Your task to perform on an android device: Is it going to rain this weekend? Image 0: 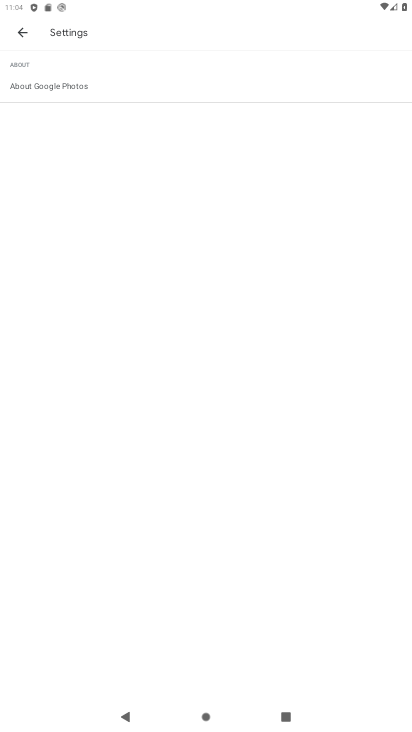
Step 0: press home button
Your task to perform on an android device: Is it going to rain this weekend? Image 1: 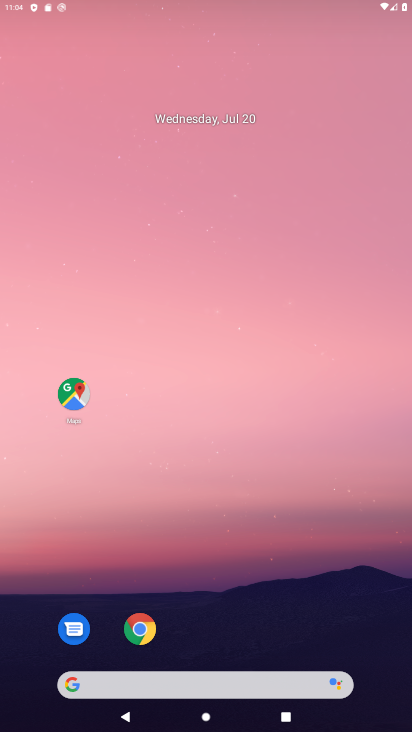
Step 1: drag from (241, 682) to (376, 21)
Your task to perform on an android device: Is it going to rain this weekend? Image 2: 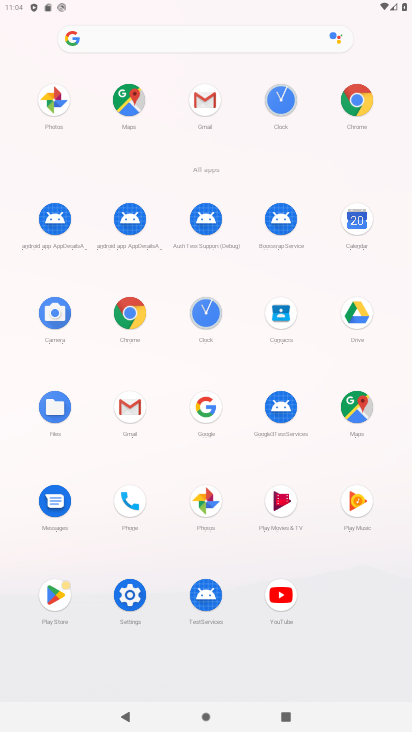
Step 2: click (136, 309)
Your task to perform on an android device: Is it going to rain this weekend? Image 3: 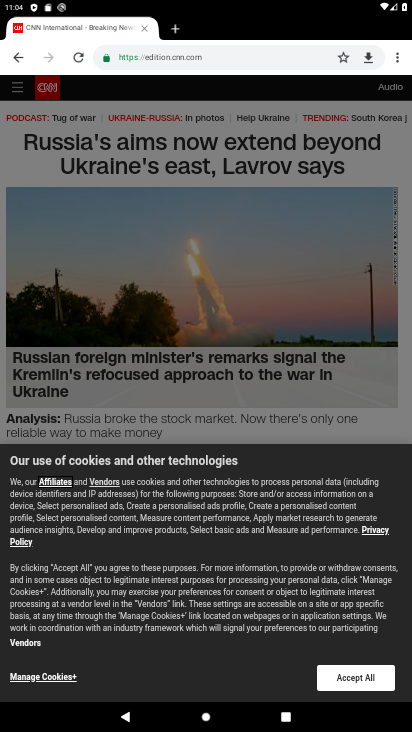
Step 3: click (244, 57)
Your task to perform on an android device: Is it going to rain this weekend? Image 4: 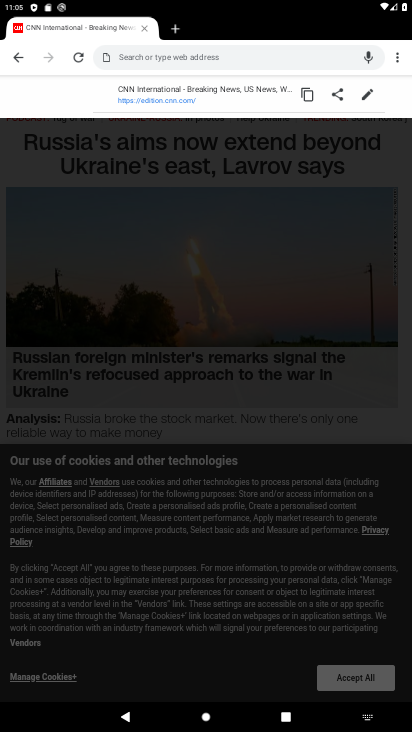
Step 4: type "going to rain  this weekend"
Your task to perform on an android device: Is it going to rain this weekend? Image 5: 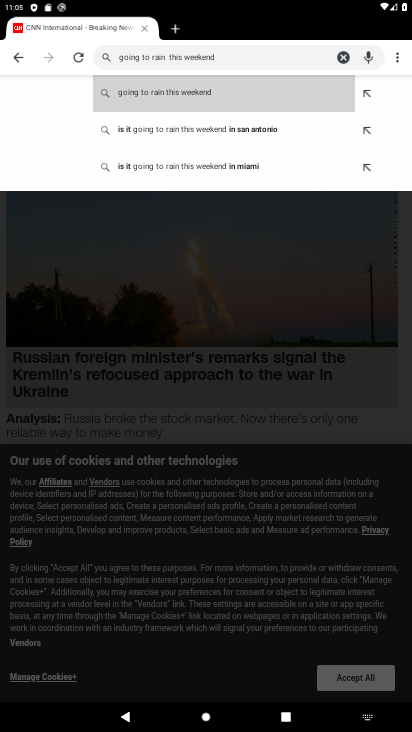
Step 5: click (186, 98)
Your task to perform on an android device: Is it going to rain this weekend? Image 6: 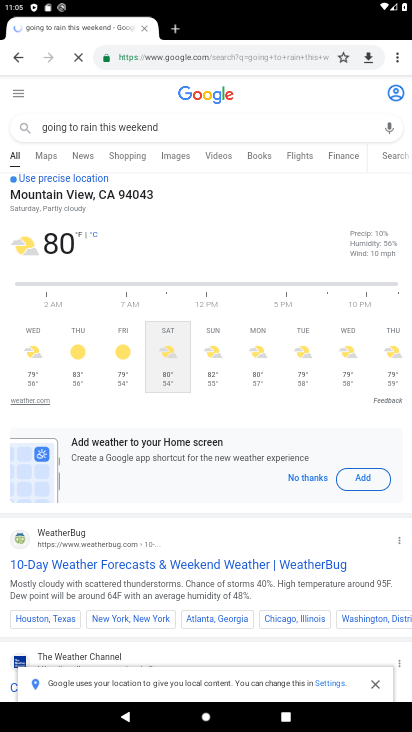
Step 6: task complete